Your task to perform on an android device: Open sound settings Image 0: 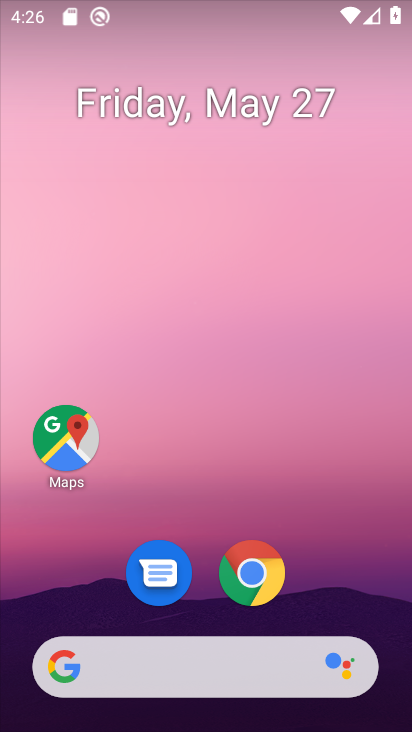
Step 0: drag from (239, 500) to (229, 1)
Your task to perform on an android device: Open sound settings Image 1: 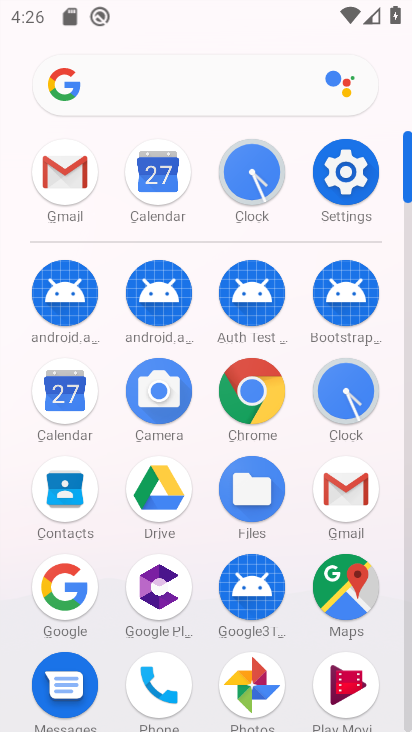
Step 1: click (336, 174)
Your task to perform on an android device: Open sound settings Image 2: 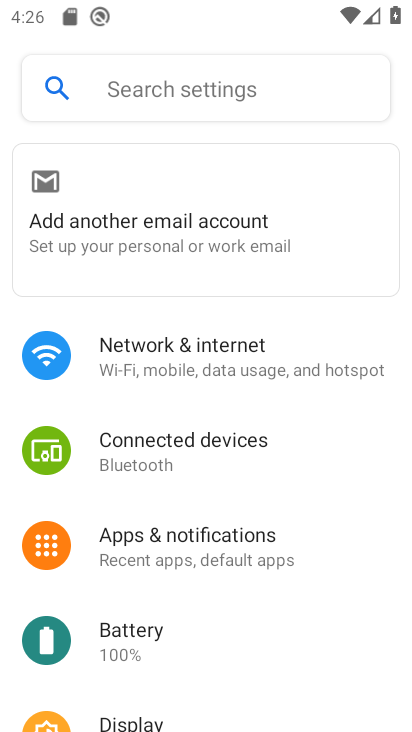
Step 2: drag from (242, 674) to (220, 201)
Your task to perform on an android device: Open sound settings Image 3: 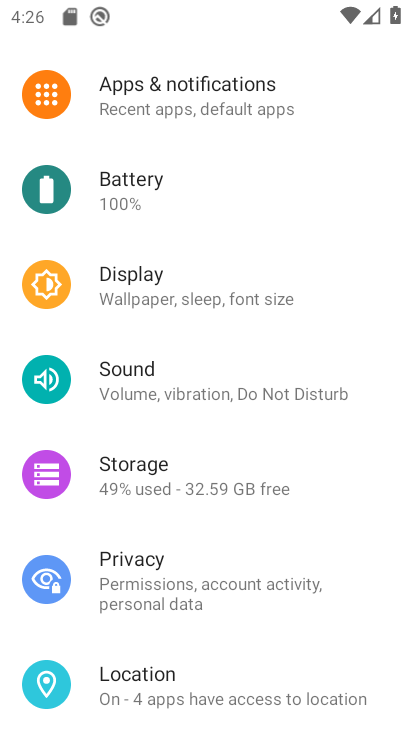
Step 3: click (222, 376)
Your task to perform on an android device: Open sound settings Image 4: 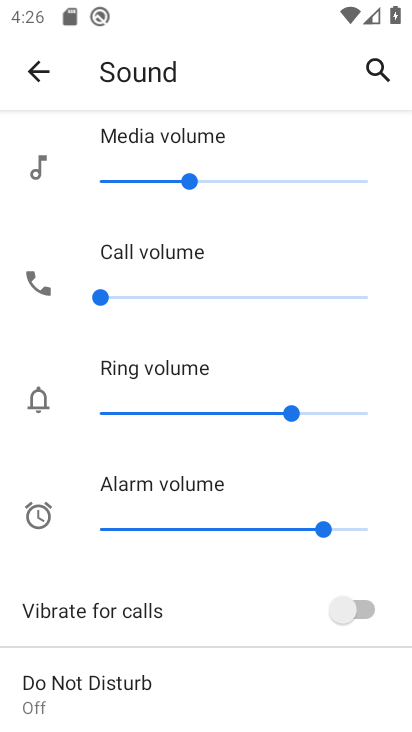
Step 4: task complete